Your task to perform on an android device: Open Google Chrome and open the bookmarks view Image 0: 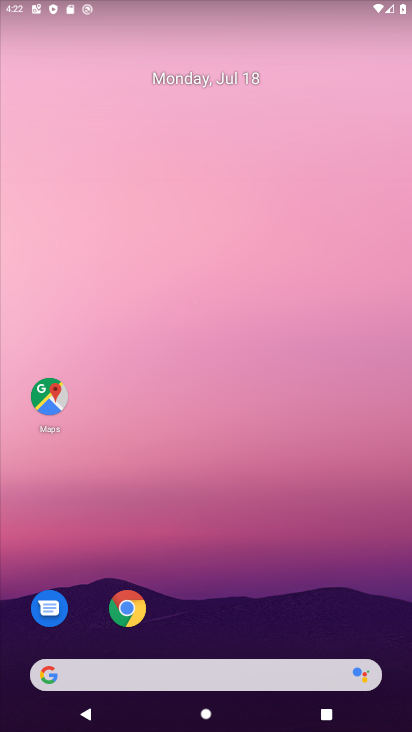
Step 0: click (133, 607)
Your task to perform on an android device: Open Google Chrome and open the bookmarks view Image 1: 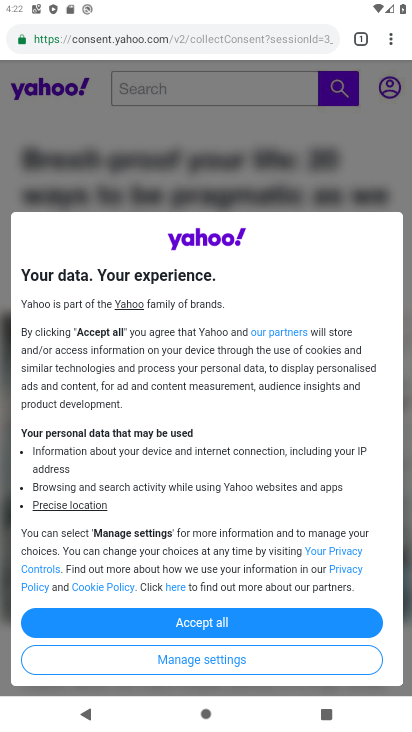
Step 1: click (200, 632)
Your task to perform on an android device: Open Google Chrome and open the bookmarks view Image 2: 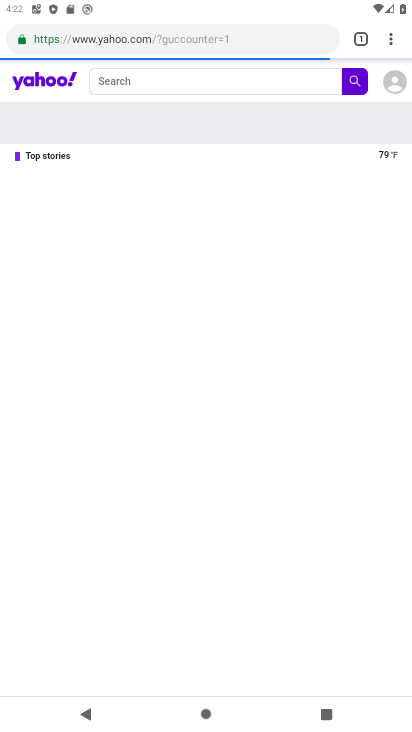
Step 2: click (390, 30)
Your task to perform on an android device: Open Google Chrome and open the bookmarks view Image 3: 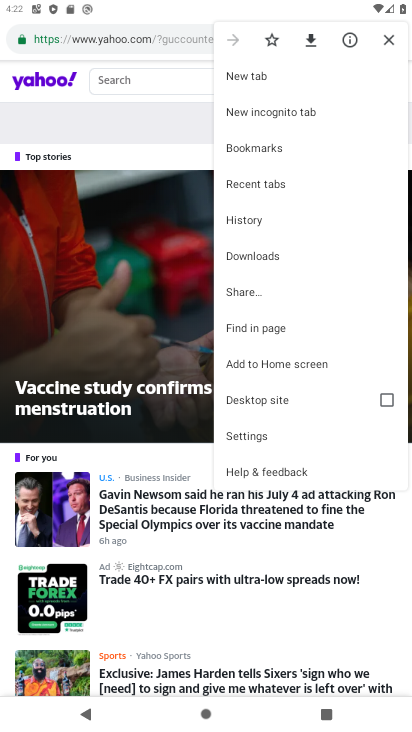
Step 3: click (270, 149)
Your task to perform on an android device: Open Google Chrome and open the bookmarks view Image 4: 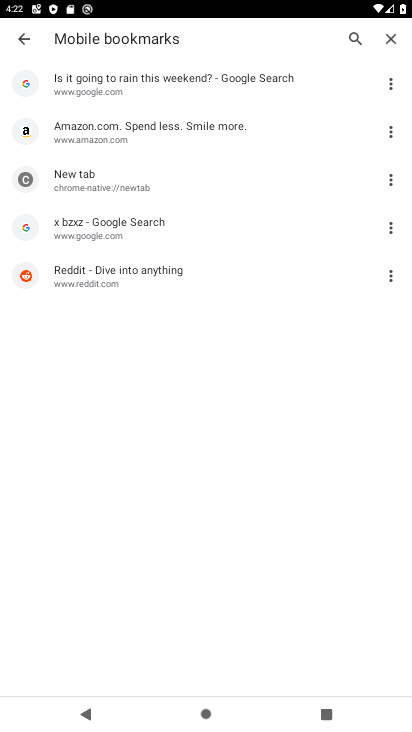
Step 4: task complete